Your task to perform on an android device: Do I have any events this weekend? Image 0: 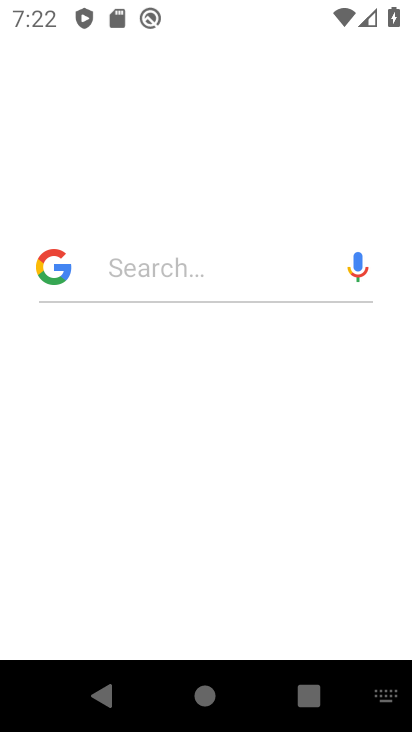
Step 0: press back button
Your task to perform on an android device: Do I have any events this weekend? Image 1: 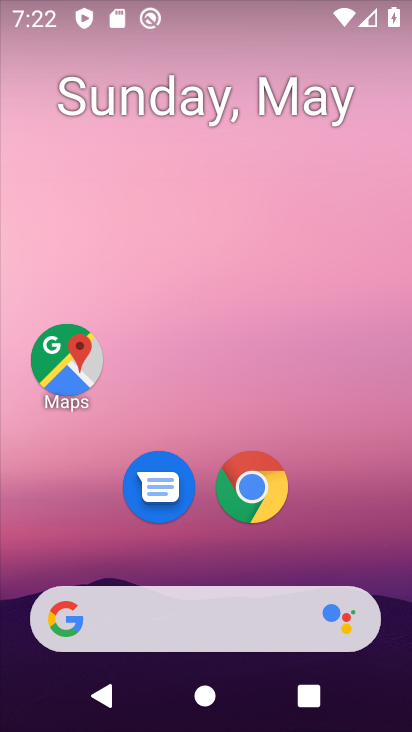
Step 1: drag from (369, 555) to (366, 222)
Your task to perform on an android device: Do I have any events this weekend? Image 2: 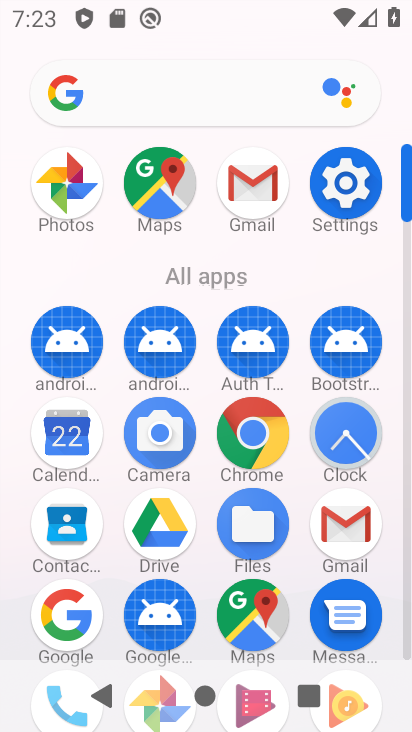
Step 2: click (64, 439)
Your task to perform on an android device: Do I have any events this weekend? Image 3: 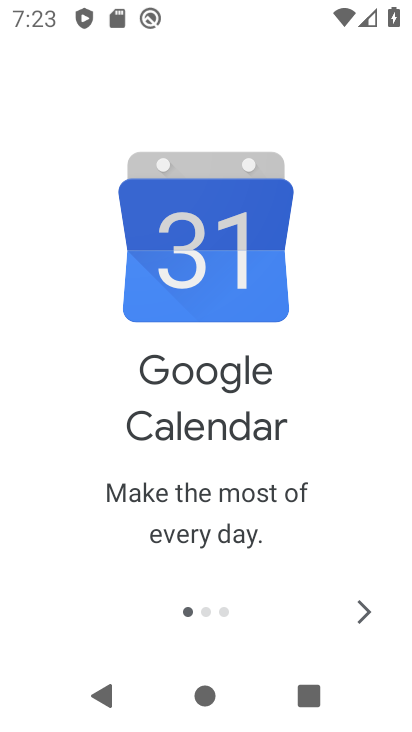
Step 3: click (357, 618)
Your task to perform on an android device: Do I have any events this weekend? Image 4: 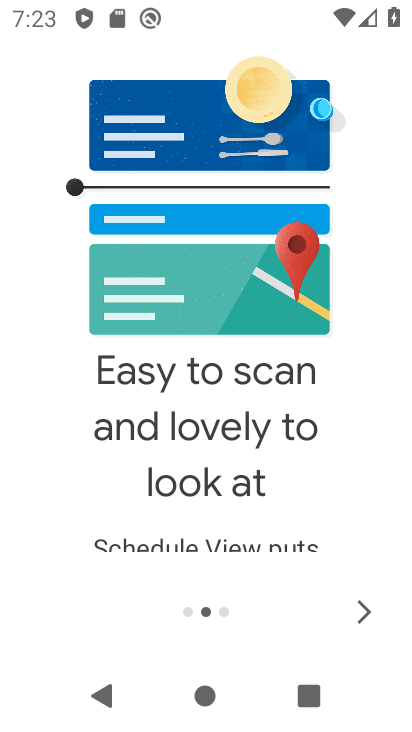
Step 4: click (357, 618)
Your task to perform on an android device: Do I have any events this weekend? Image 5: 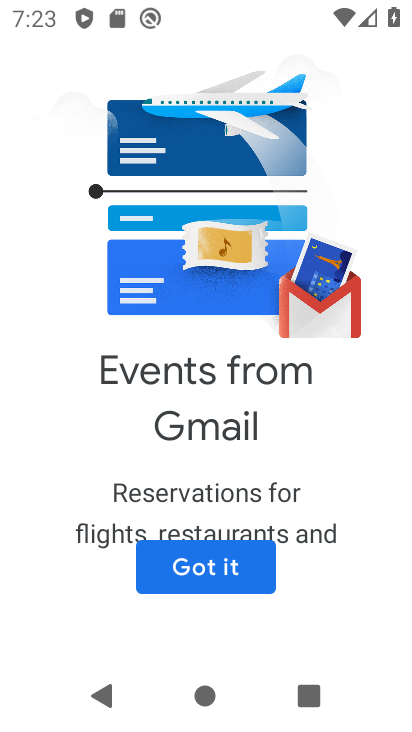
Step 5: click (223, 580)
Your task to perform on an android device: Do I have any events this weekend? Image 6: 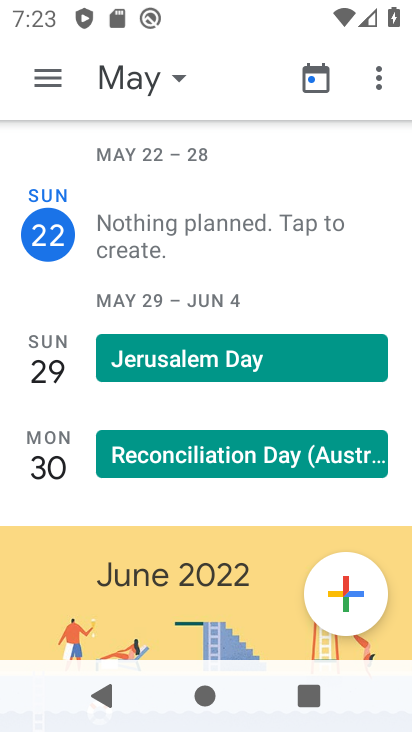
Step 6: click (235, 355)
Your task to perform on an android device: Do I have any events this weekend? Image 7: 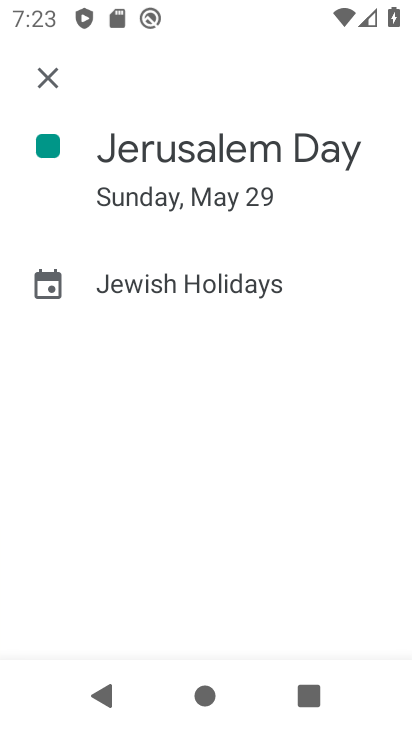
Step 7: task complete